Your task to perform on an android device: Search for Mexican restaurants on Maps Image 0: 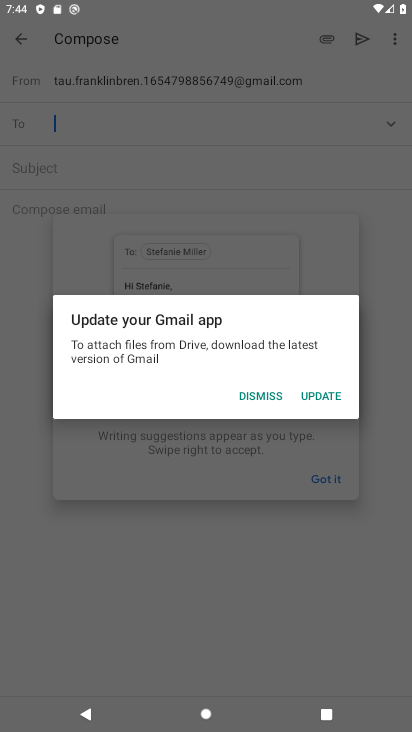
Step 0: press home button
Your task to perform on an android device: Search for Mexican restaurants on Maps Image 1: 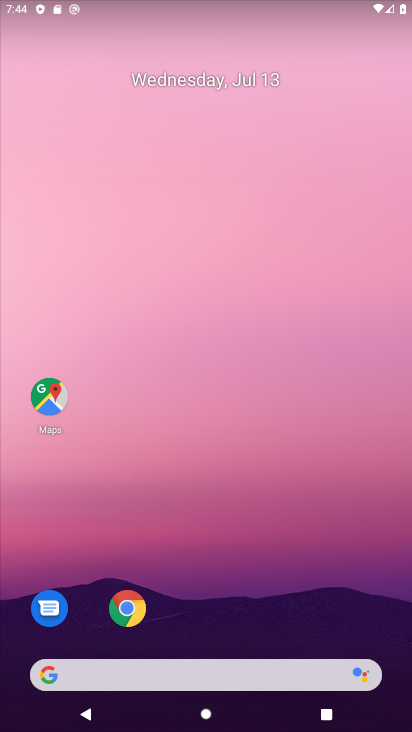
Step 1: click (46, 403)
Your task to perform on an android device: Search for Mexican restaurants on Maps Image 2: 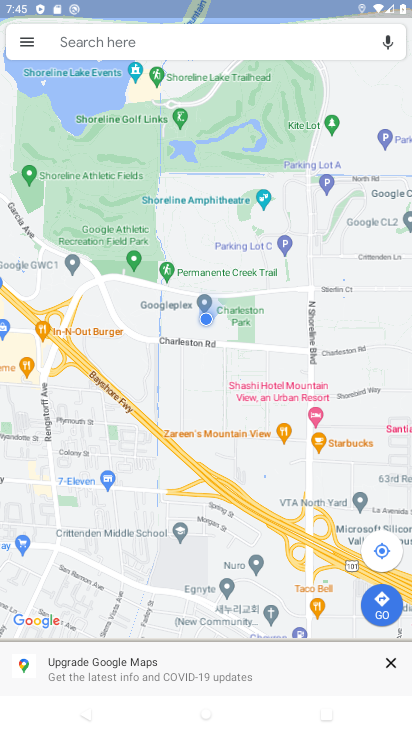
Step 2: click (139, 35)
Your task to perform on an android device: Search for Mexican restaurants on Maps Image 3: 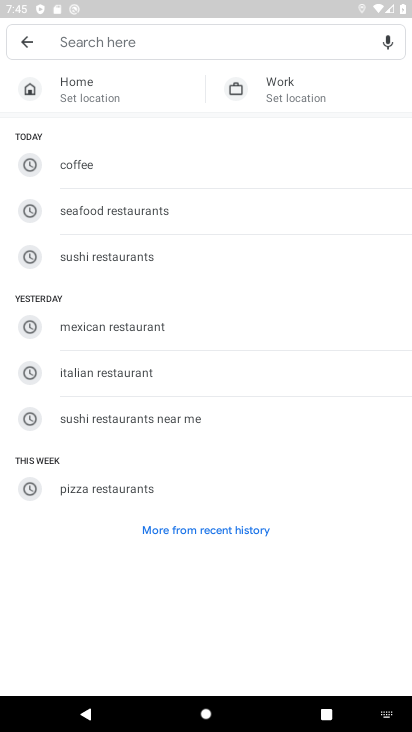
Step 3: click (118, 320)
Your task to perform on an android device: Search for Mexican restaurants on Maps Image 4: 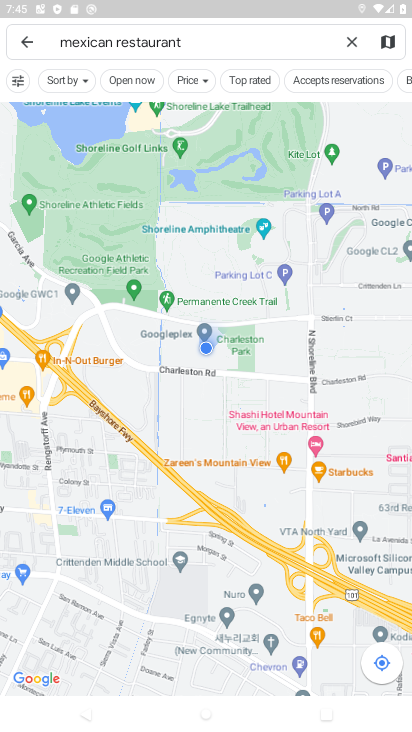
Step 4: task complete